Your task to perform on an android device: Go to CNN.com Image 0: 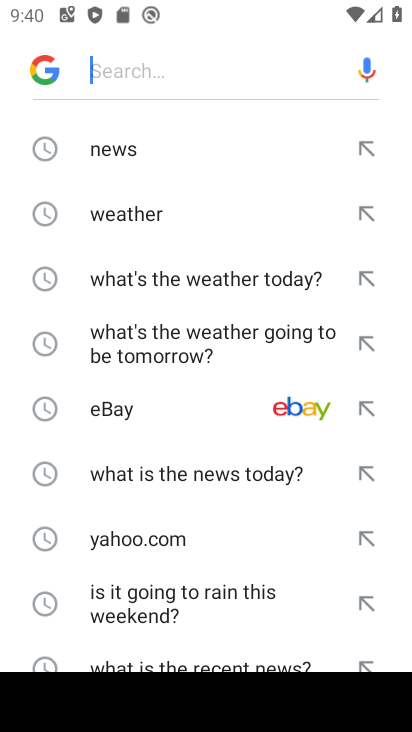
Step 0: click (302, 55)
Your task to perform on an android device: Go to CNN.com Image 1: 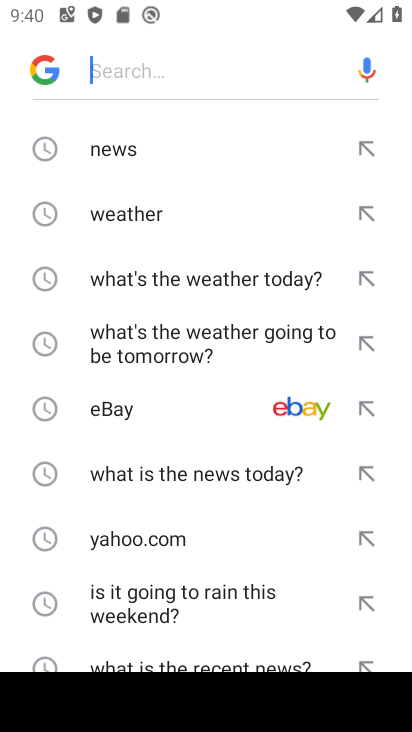
Step 1: type "cnn.com"
Your task to perform on an android device: Go to CNN.com Image 2: 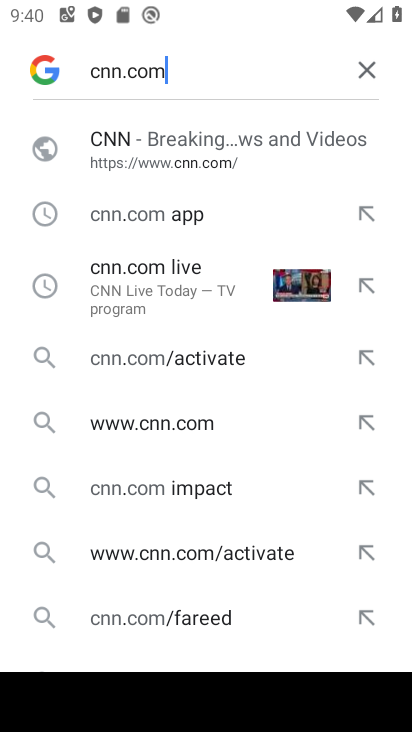
Step 2: click (178, 152)
Your task to perform on an android device: Go to CNN.com Image 3: 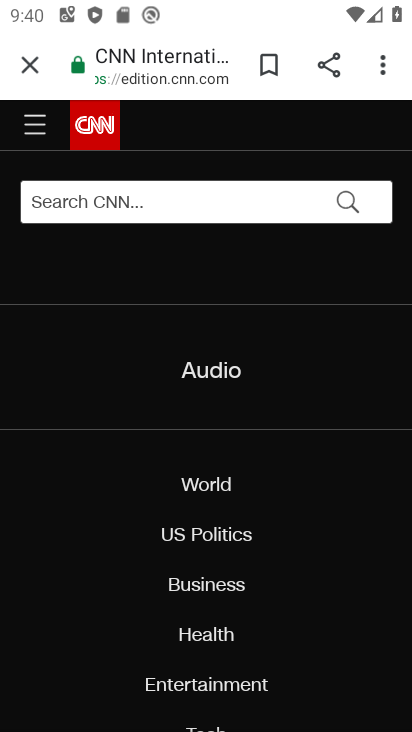
Step 3: task complete